Your task to perform on an android device: toggle notifications settings in the gmail app Image 0: 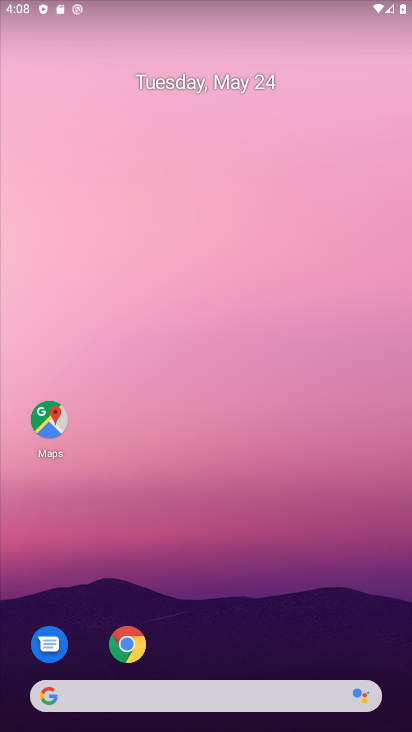
Step 0: drag from (260, 664) to (336, 0)
Your task to perform on an android device: toggle notifications settings in the gmail app Image 1: 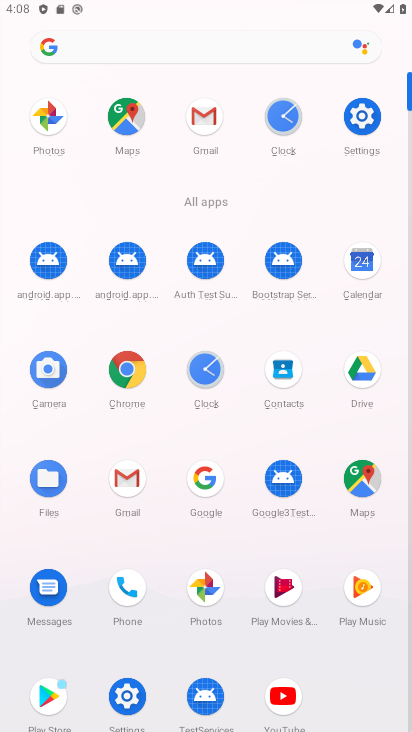
Step 1: drag from (270, 559) to (225, 7)
Your task to perform on an android device: toggle notifications settings in the gmail app Image 2: 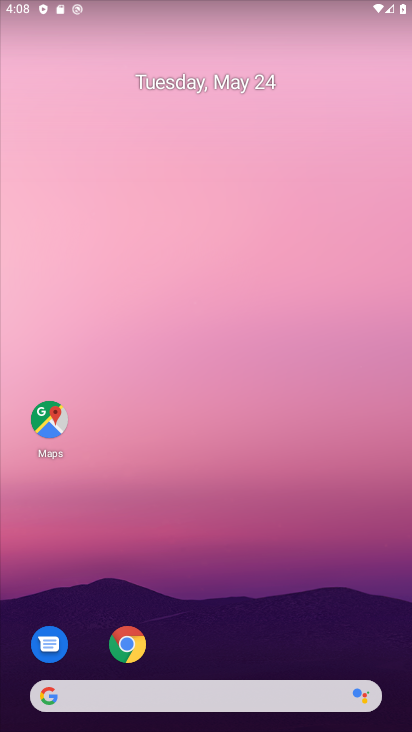
Step 2: click (227, 71)
Your task to perform on an android device: toggle notifications settings in the gmail app Image 3: 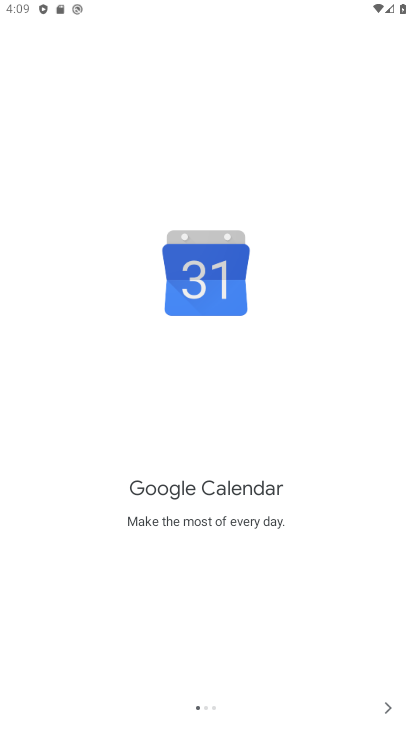
Step 3: click (202, 7)
Your task to perform on an android device: toggle notifications settings in the gmail app Image 4: 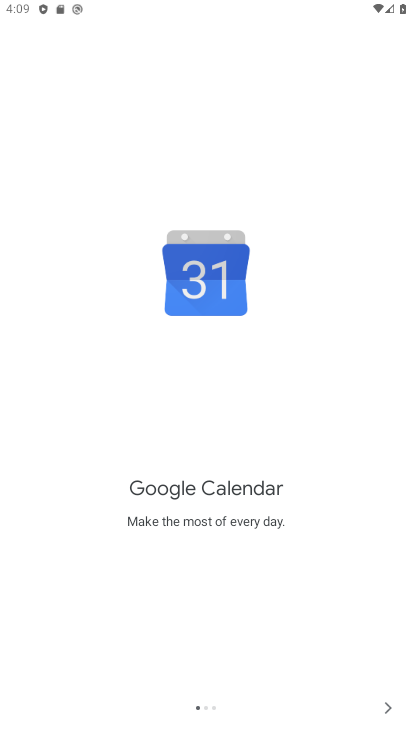
Step 4: drag from (246, 513) to (201, 48)
Your task to perform on an android device: toggle notifications settings in the gmail app Image 5: 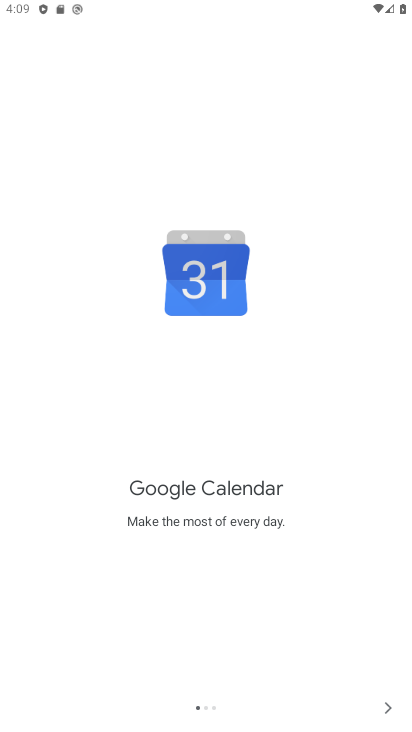
Step 5: click (126, 478)
Your task to perform on an android device: toggle notifications settings in the gmail app Image 6: 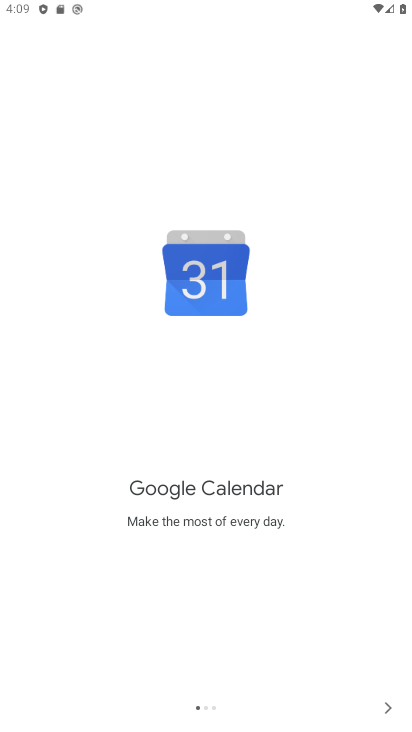
Step 6: click (390, 706)
Your task to perform on an android device: toggle notifications settings in the gmail app Image 7: 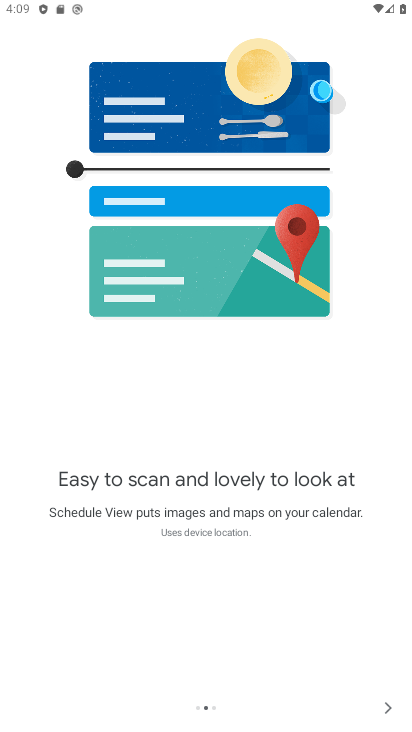
Step 7: click (383, 708)
Your task to perform on an android device: toggle notifications settings in the gmail app Image 8: 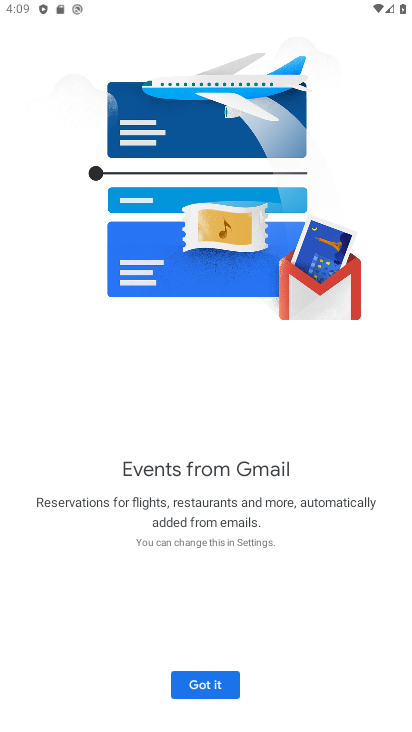
Step 8: click (394, 701)
Your task to perform on an android device: toggle notifications settings in the gmail app Image 9: 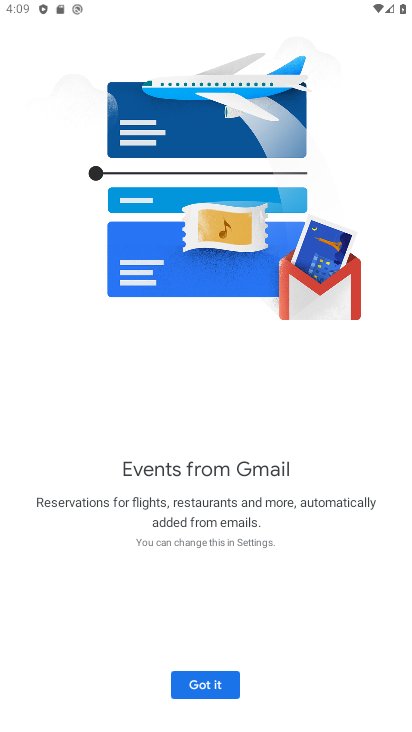
Step 9: click (384, 714)
Your task to perform on an android device: toggle notifications settings in the gmail app Image 10: 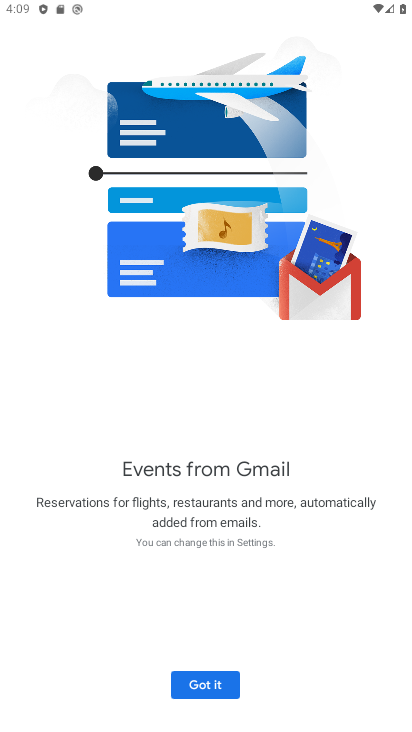
Step 10: click (380, 715)
Your task to perform on an android device: toggle notifications settings in the gmail app Image 11: 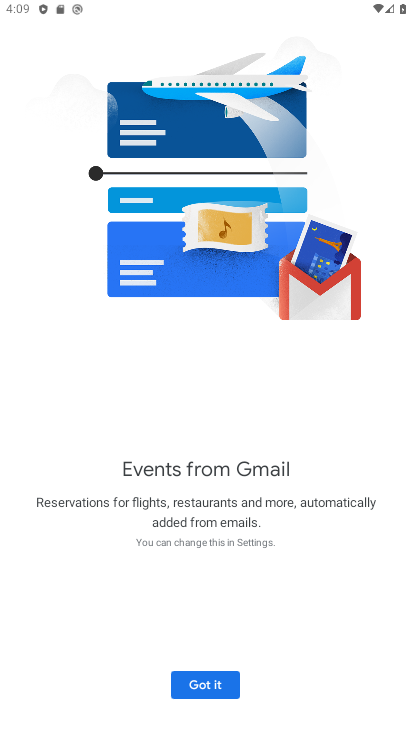
Step 11: click (386, 719)
Your task to perform on an android device: toggle notifications settings in the gmail app Image 12: 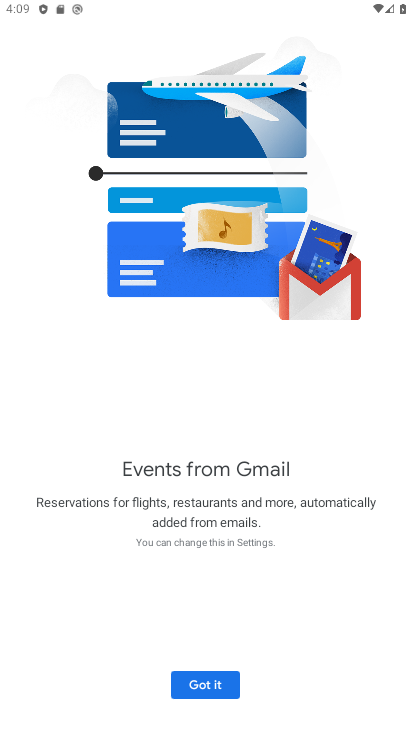
Step 12: click (188, 679)
Your task to perform on an android device: toggle notifications settings in the gmail app Image 13: 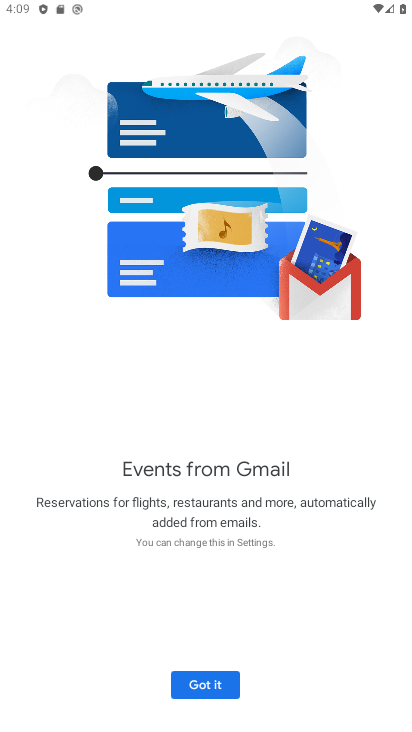
Step 13: click (199, 682)
Your task to perform on an android device: toggle notifications settings in the gmail app Image 14: 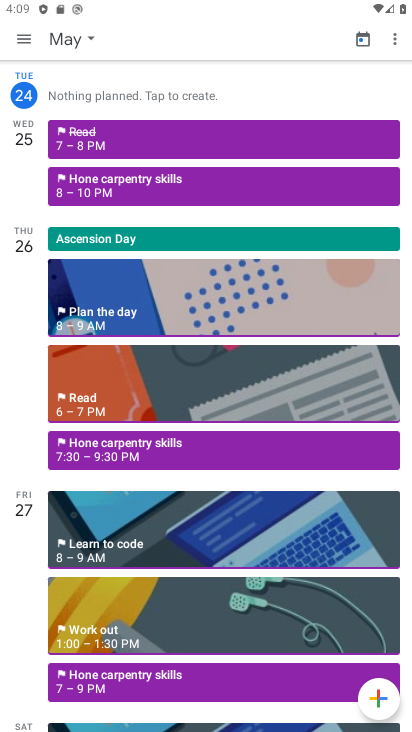
Step 14: click (202, 679)
Your task to perform on an android device: toggle notifications settings in the gmail app Image 15: 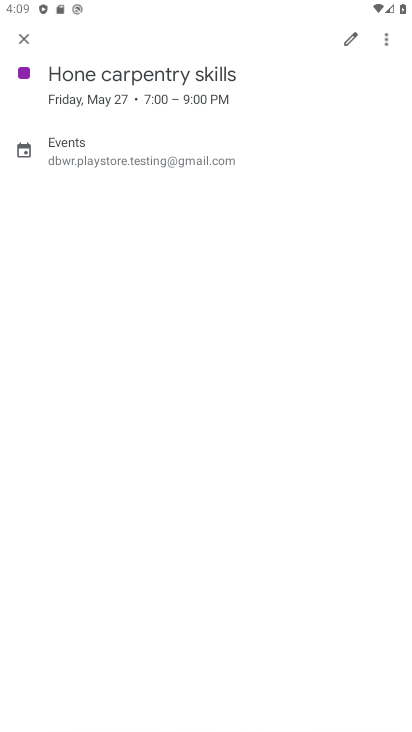
Step 15: click (28, 38)
Your task to perform on an android device: toggle notifications settings in the gmail app Image 16: 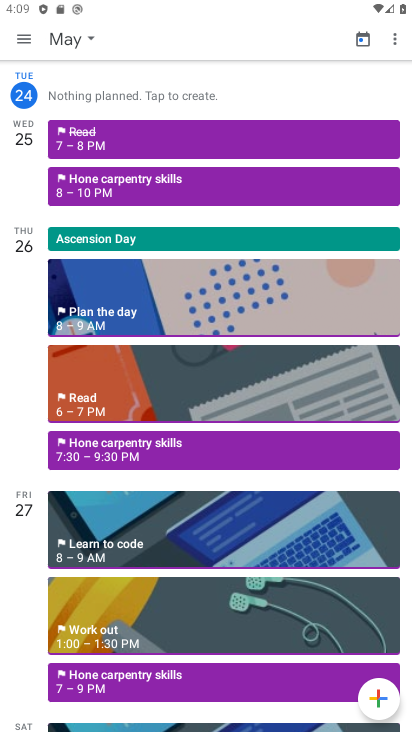
Step 16: task complete